Your task to perform on an android device: Turn off the flashlight Image 0: 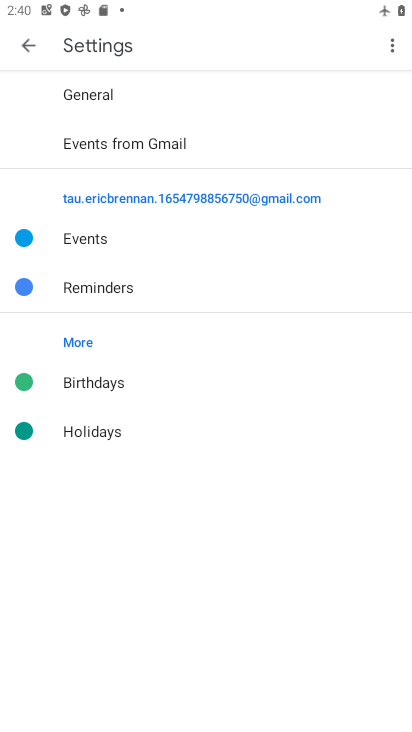
Step 0: press home button
Your task to perform on an android device: Turn off the flashlight Image 1: 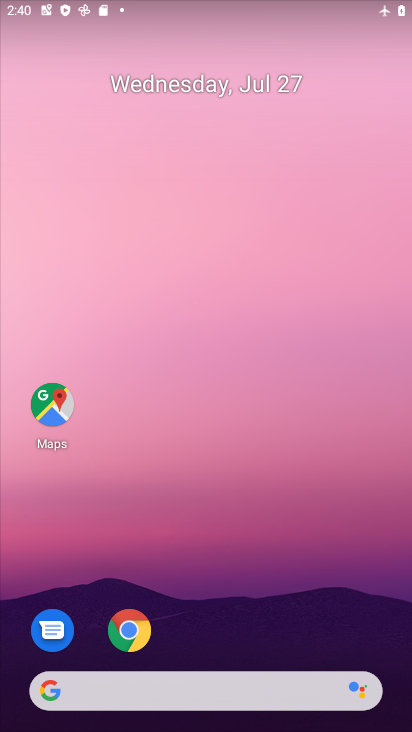
Step 1: drag from (392, 688) to (316, 99)
Your task to perform on an android device: Turn off the flashlight Image 2: 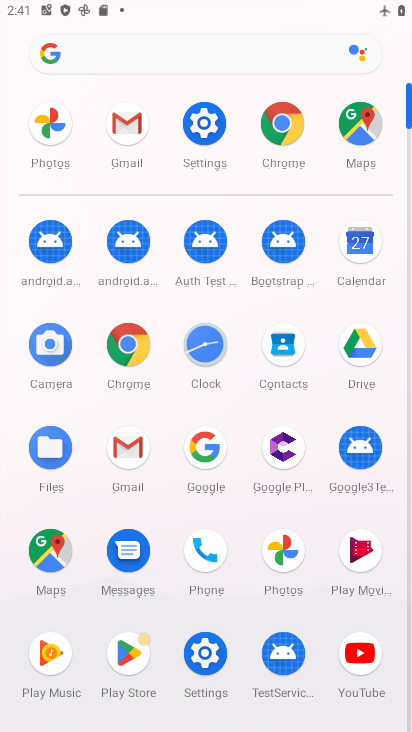
Step 2: click (213, 129)
Your task to perform on an android device: Turn off the flashlight Image 3: 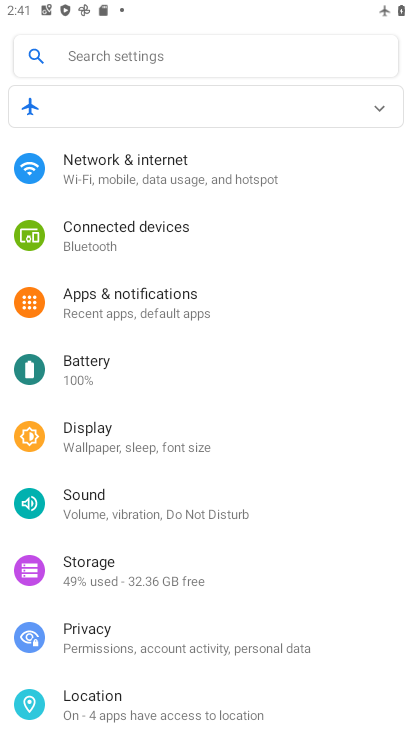
Step 3: click (77, 431)
Your task to perform on an android device: Turn off the flashlight Image 4: 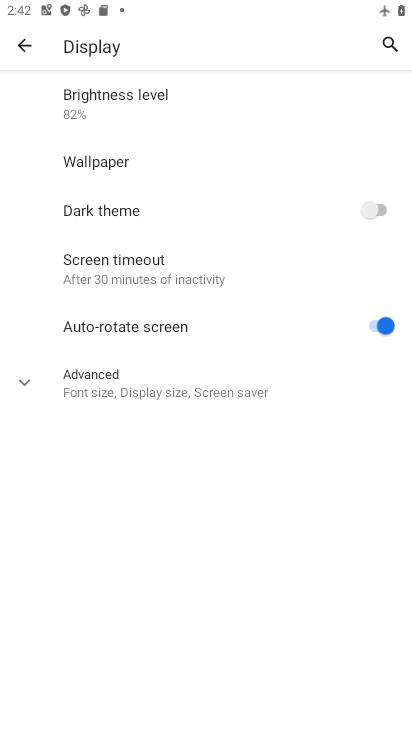
Step 4: task complete